Your task to perform on an android device: change the clock style Image 0: 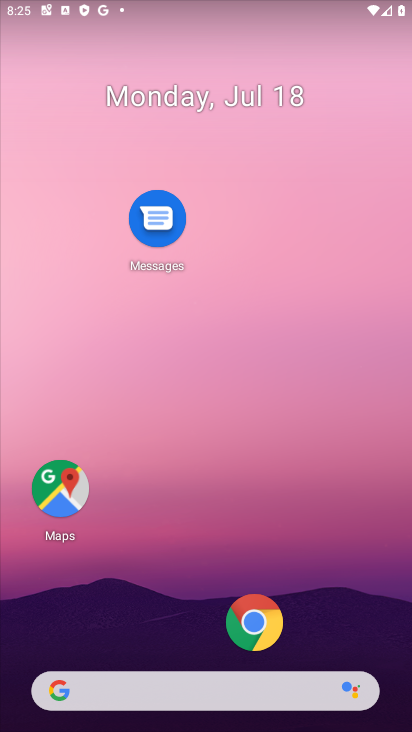
Step 0: drag from (130, 672) to (212, 223)
Your task to perform on an android device: change the clock style Image 1: 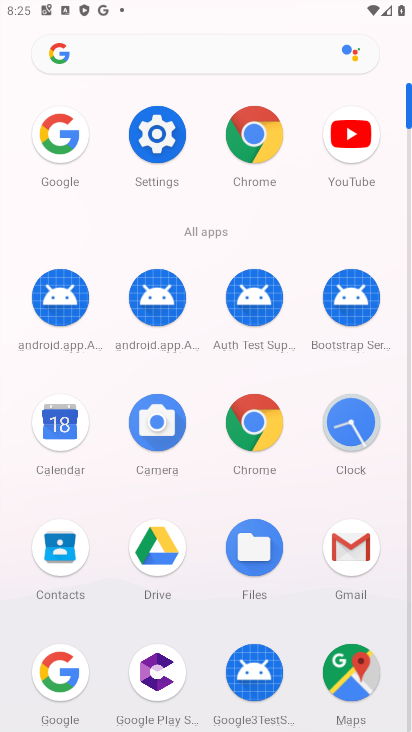
Step 1: click (357, 439)
Your task to perform on an android device: change the clock style Image 2: 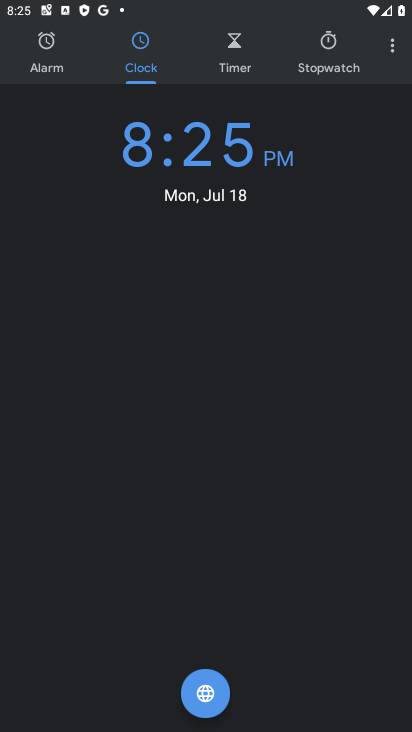
Step 2: click (392, 53)
Your task to perform on an android device: change the clock style Image 3: 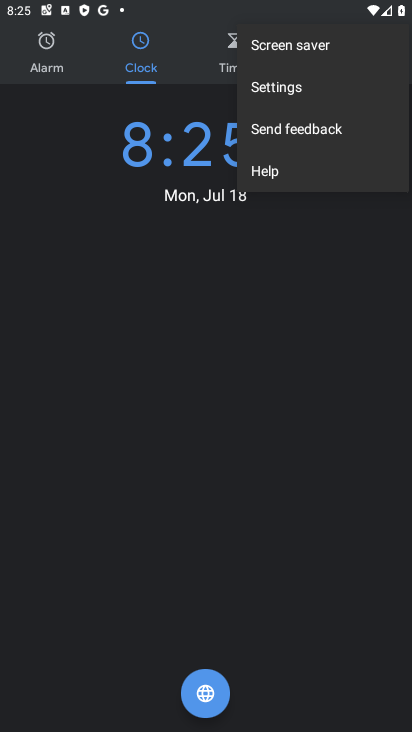
Step 3: click (292, 92)
Your task to perform on an android device: change the clock style Image 4: 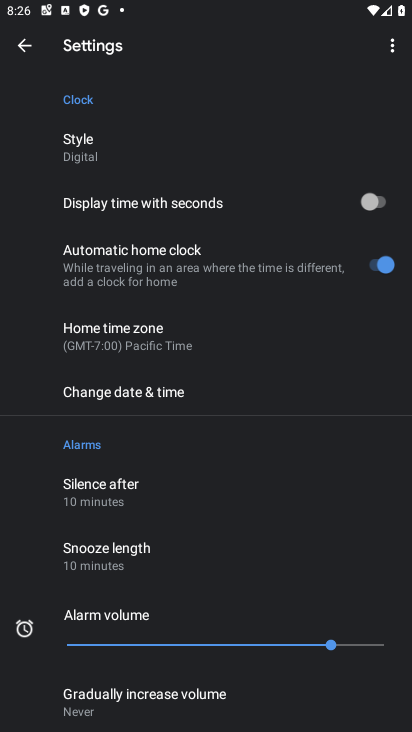
Step 4: click (109, 148)
Your task to perform on an android device: change the clock style Image 5: 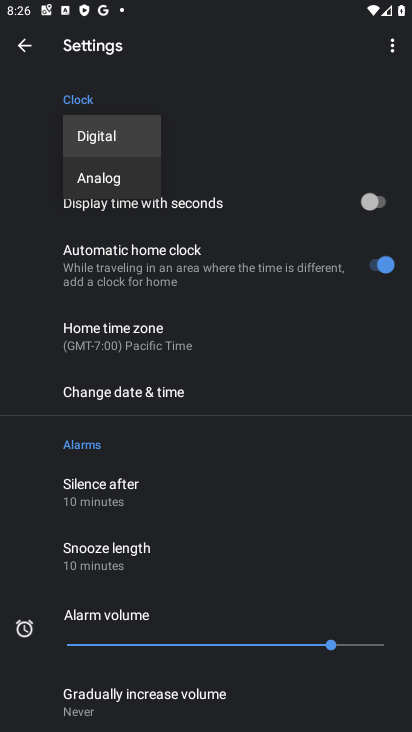
Step 5: click (122, 181)
Your task to perform on an android device: change the clock style Image 6: 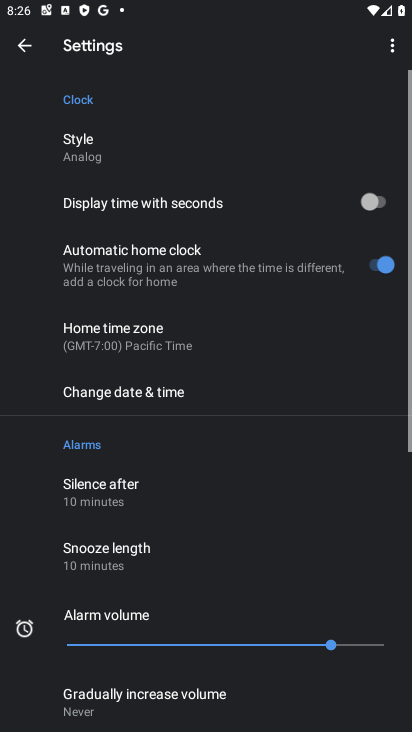
Step 6: task complete